Your task to perform on an android device: open app "Life360: Find Family & Friends" (install if not already installed) and go to login screen Image 0: 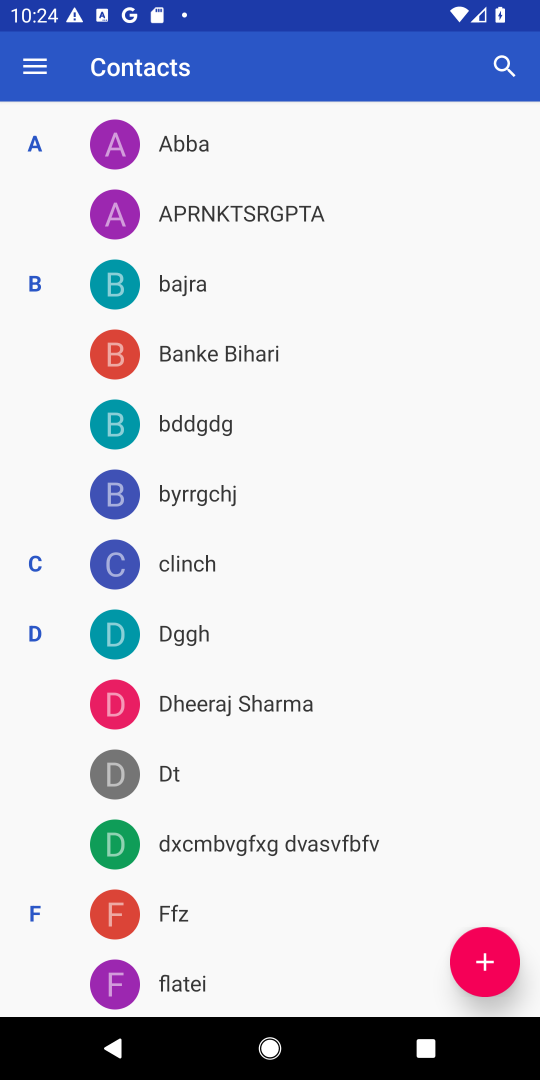
Step 0: press home button
Your task to perform on an android device: open app "Life360: Find Family & Friends" (install if not already installed) and go to login screen Image 1: 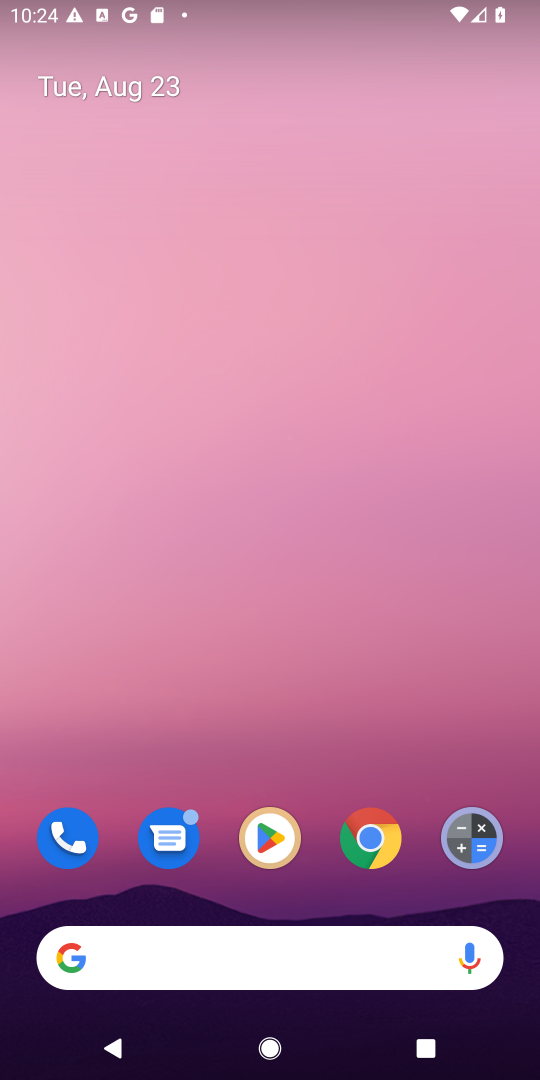
Step 1: click (276, 816)
Your task to perform on an android device: open app "Life360: Find Family & Friends" (install if not already installed) and go to login screen Image 2: 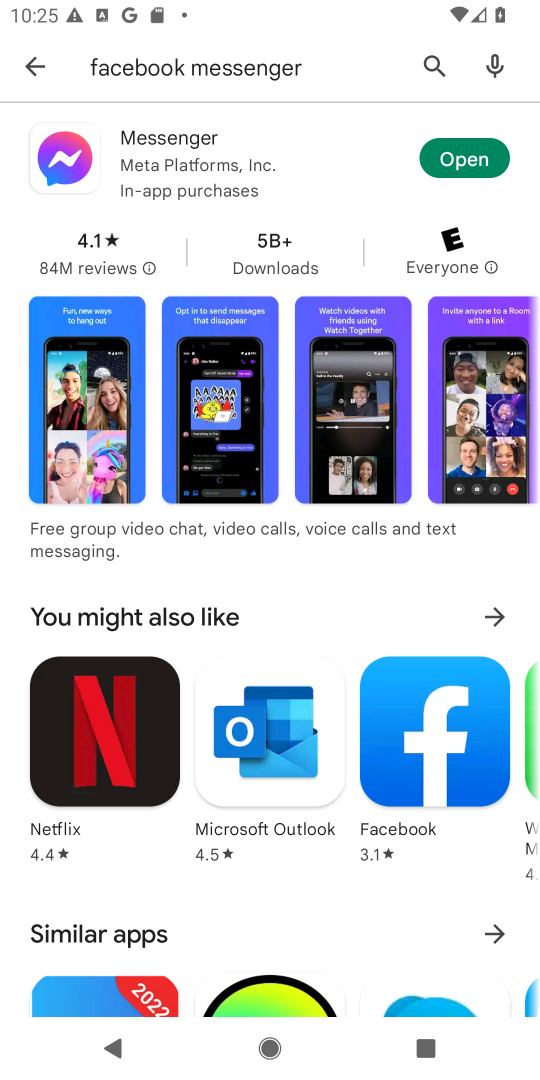
Step 2: click (420, 57)
Your task to perform on an android device: open app "Life360: Find Family & Friends" (install if not already installed) and go to login screen Image 3: 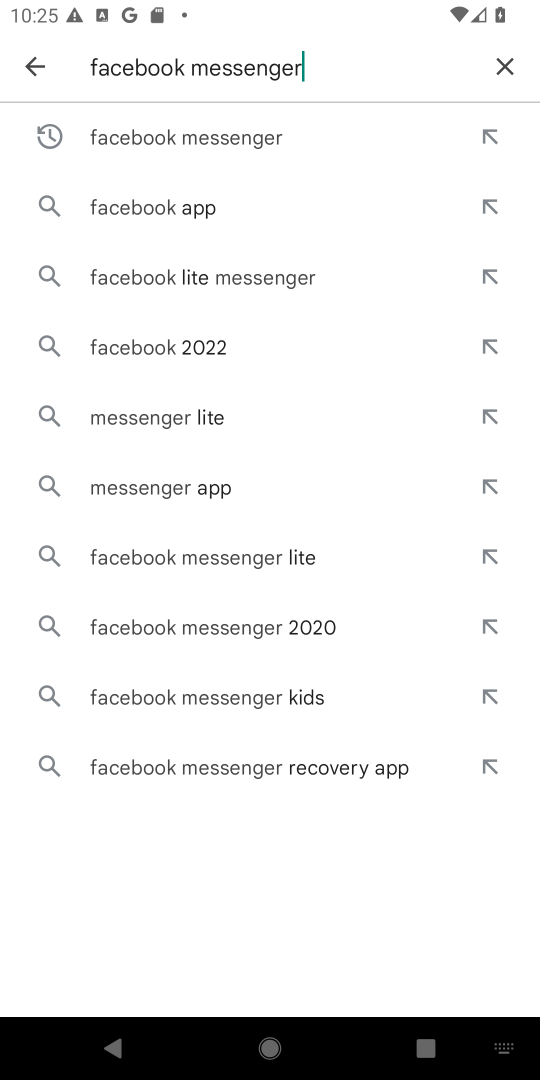
Step 3: click (511, 57)
Your task to perform on an android device: open app "Life360: Find Family & Friends" (install if not already installed) and go to login screen Image 4: 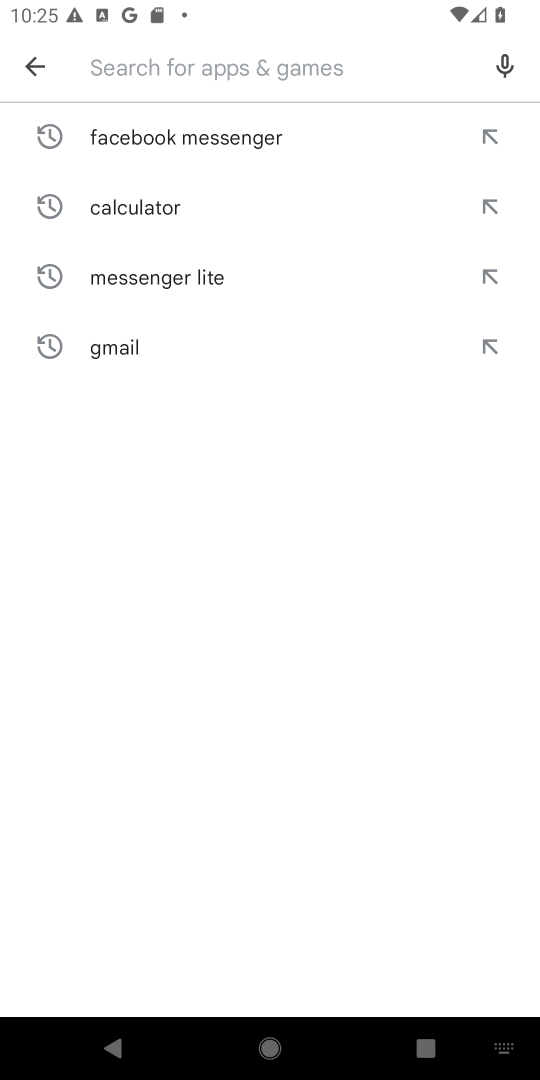
Step 4: type "Life360: Find Family & Friends"
Your task to perform on an android device: open app "Life360: Find Family & Friends" (install if not already installed) and go to login screen Image 5: 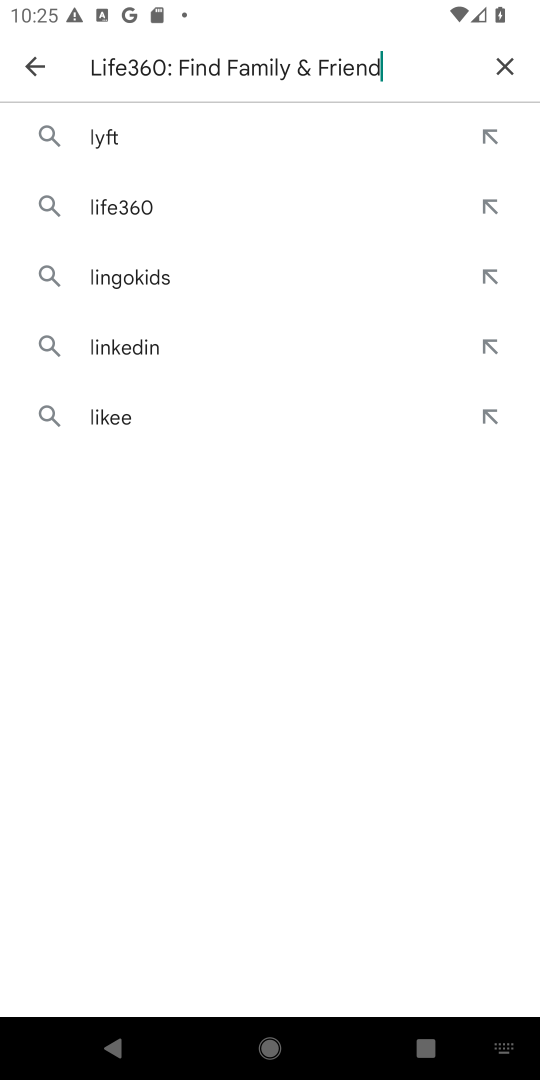
Step 5: type ""
Your task to perform on an android device: open app "Life360: Find Family & Friends" (install if not already installed) and go to login screen Image 6: 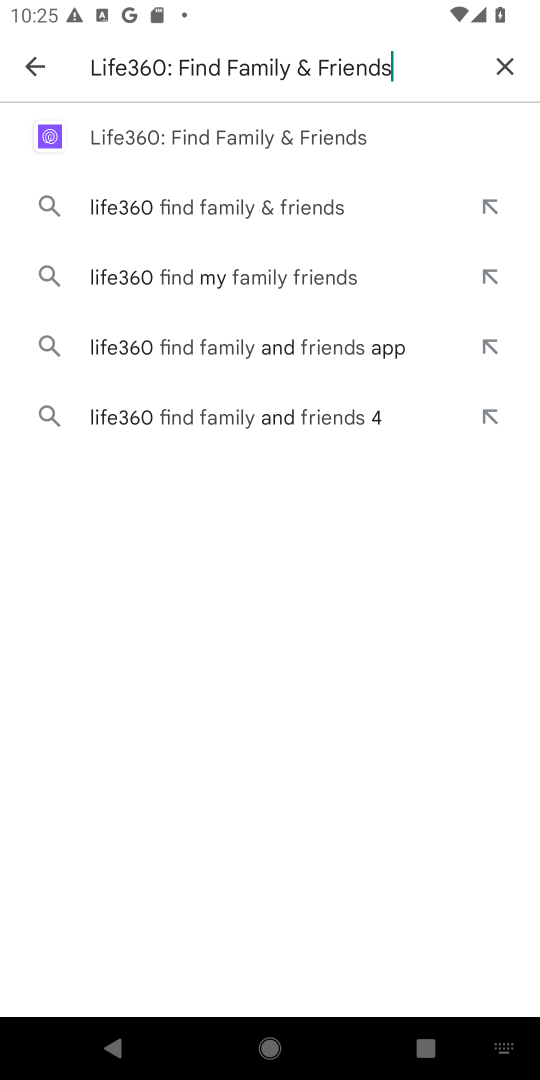
Step 6: click (295, 132)
Your task to perform on an android device: open app "Life360: Find Family & Friends" (install if not already installed) and go to login screen Image 7: 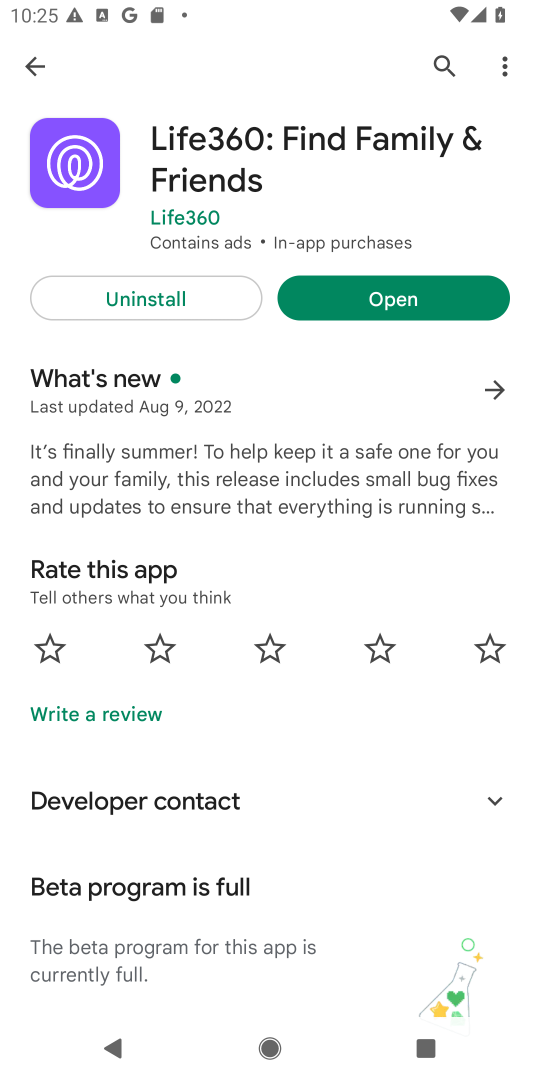
Step 7: click (379, 284)
Your task to perform on an android device: open app "Life360: Find Family & Friends" (install if not already installed) and go to login screen Image 8: 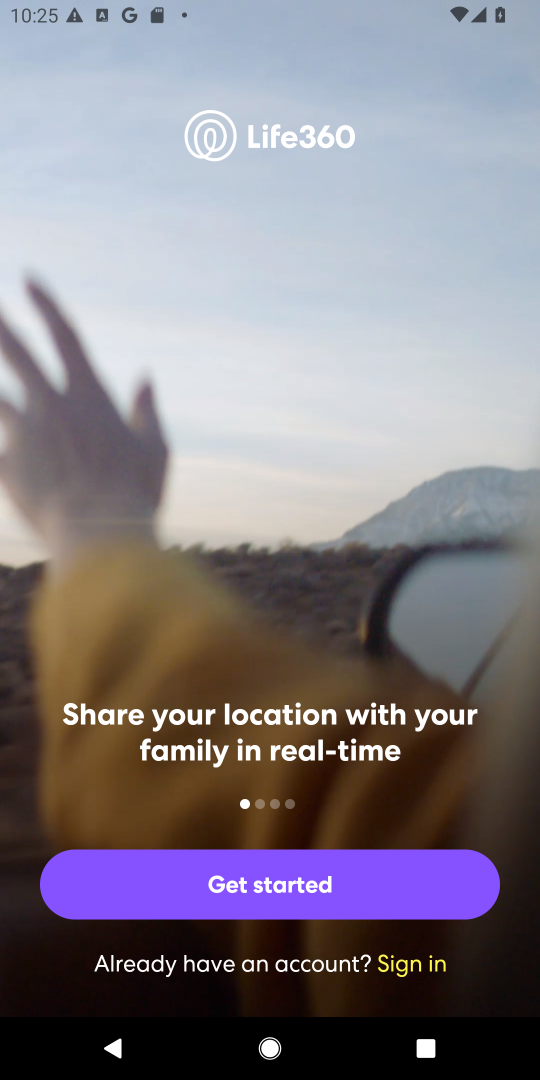
Step 8: task complete